Your task to perform on an android device: find snoozed emails in the gmail app Image 0: 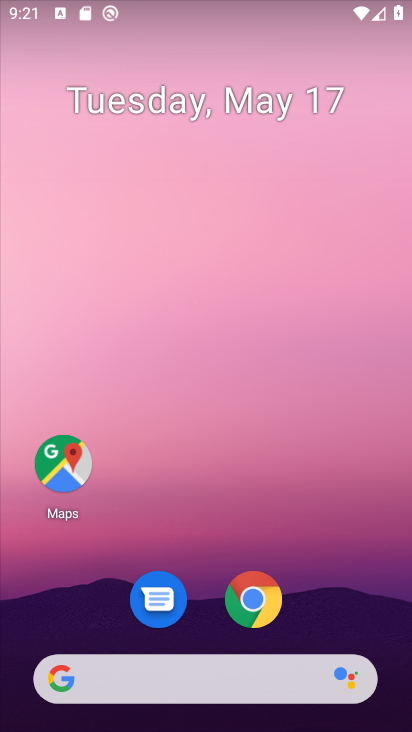
Step 0: click (103, 236)
Your task to perform on an android device: find snoozed emails in the gmail app Image 1: 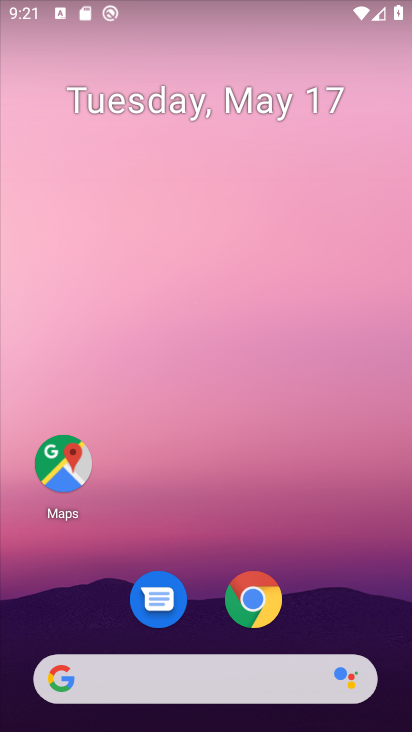
Step 1: drag from (396, 696) to (409, 198)
Your task to perform on an android device: find snoozed emails in the gmail app Image 2: 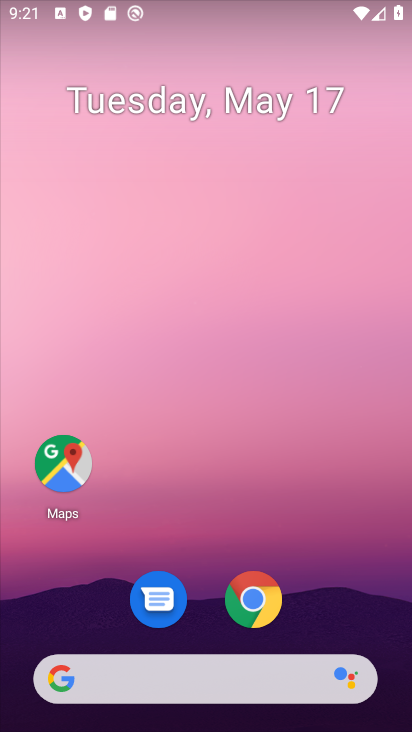
Step 2: drag from (401, 512) to (401, 378)
Your task to perform on an android device: find snoozed emails in the gmail app Image 3: 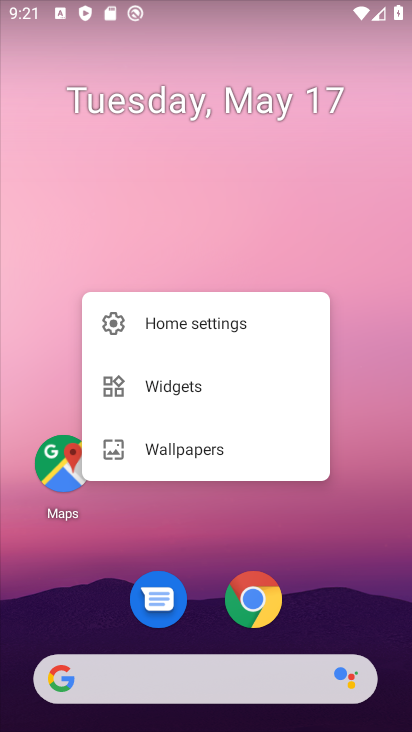
Step 3: drag from (389, 688) to (407, 260)
Your task to perform on an android device: find snoozed emails in the gmail app Image 4: 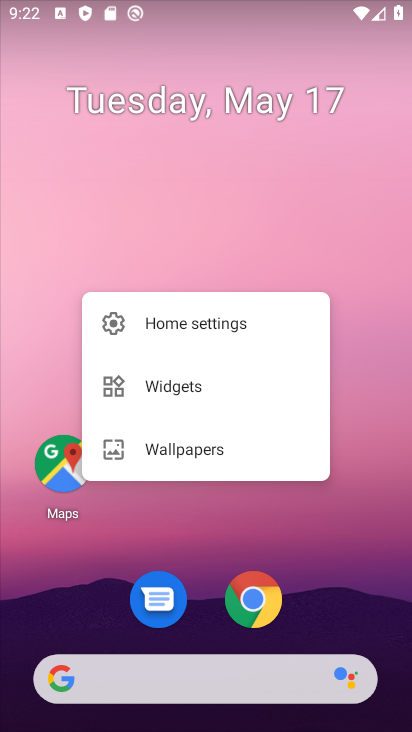
Step 4: press back button
Your task to perform on an android device: find snoozed emails in the gmail app Image 5: 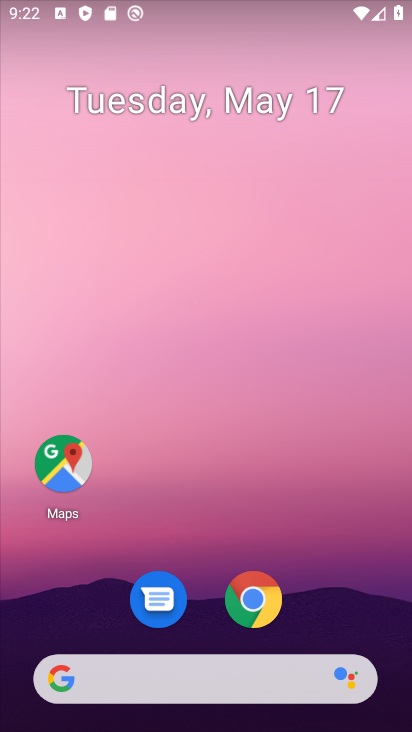
Step 5: drag from (387, 636) to (410, 50)
Your task to perform on an android device: find snoozed emails in the gmail app Image 6: 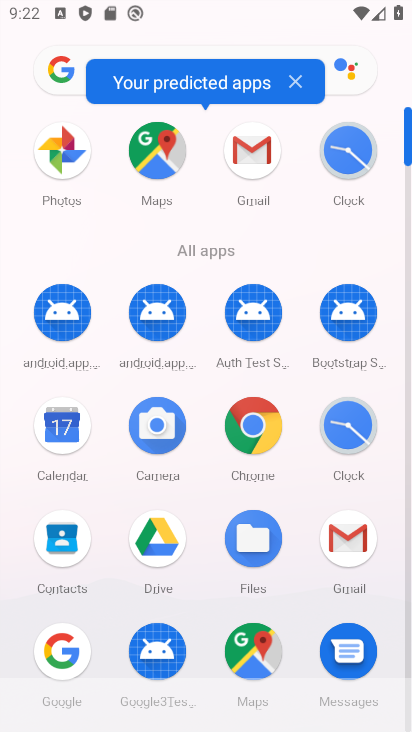
Step 6: click (347, 534)
Your task to perform on an android device: find snoozed emails in the gmail app Image 7: 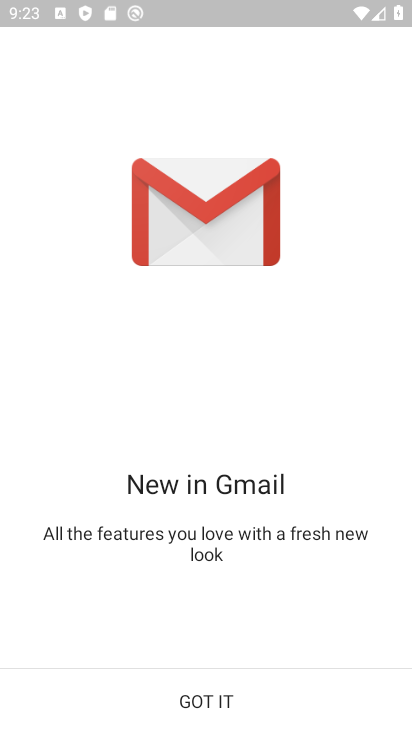
Step 7: click (203, 694)
Your task to perform on an android device: find snoozed emails in the gmail app Image 8: 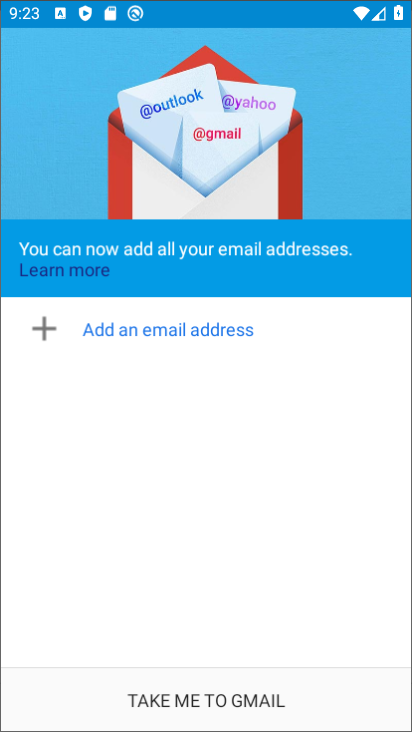
Step 8: click (201, 698)
Your task to perform on an android device: find snoozed emails in the gmail app Image 9: 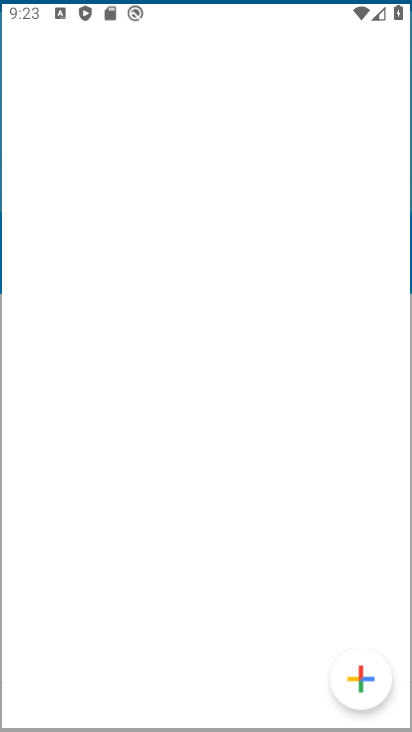
Step 9: click (201, 698)
Your task to perform on an android device: find snoozed emails in the gmail app Image 10: 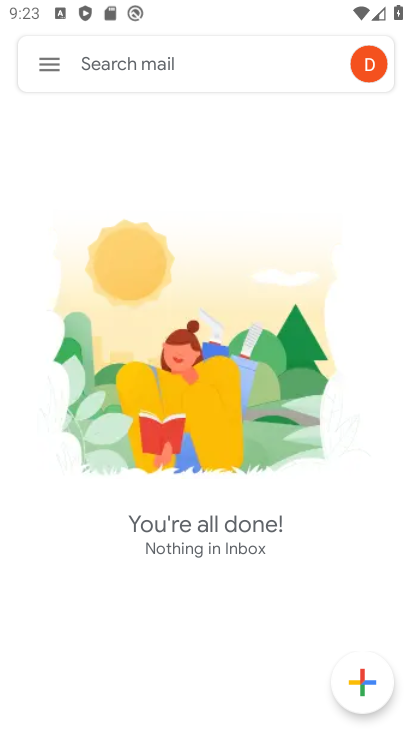
Step 10: click (49, 65)
Your task to perform on an android device: find snoozed emails in the gmail app Image 11: 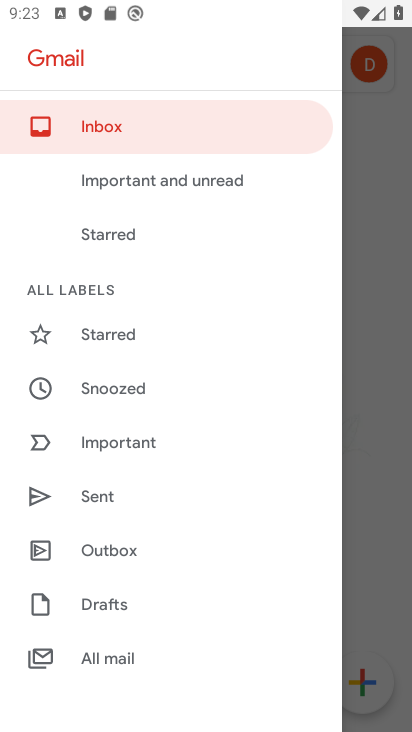
Step 11: drag from (256, 635) to (269, 335)
Your task to perform on an android device: find snoozed emails in the gmail app Image 12: 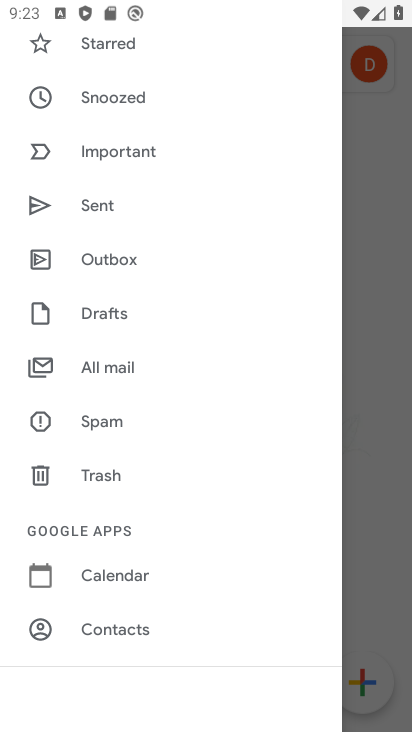
Step 12: click (101, 88)
Your task to perform on an android device: find snoozed emails in the gmail app Image 13: 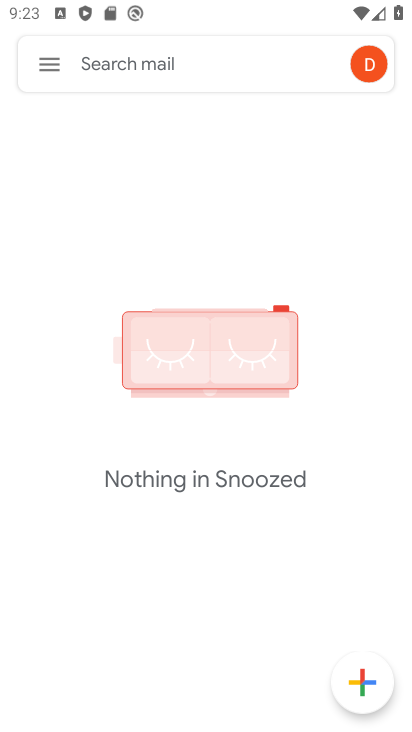
Step 13: task complete